Your task to perform on an android device: set the timer Image 0: 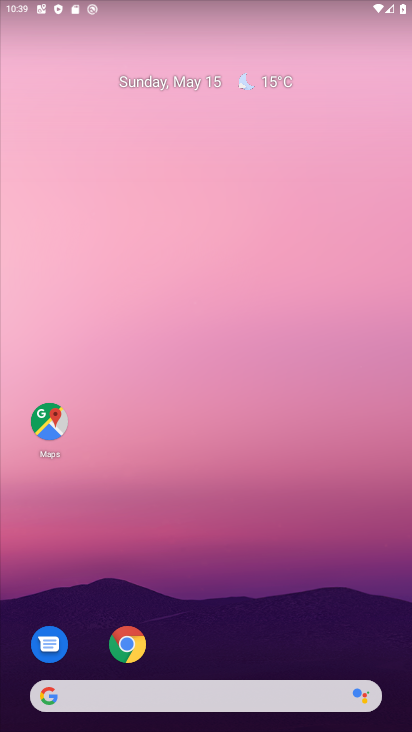
Step 0: drag from (287, 630) to (257, 155)
Your task to perform on an android device: set the timer Image 1: 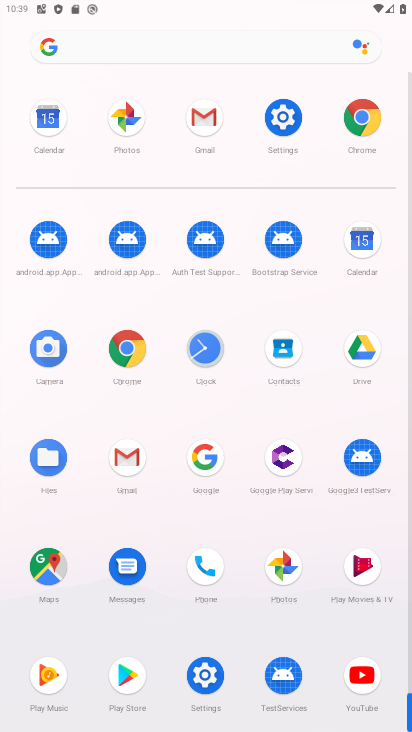
Step 1: click (210, 350)
Your task to perform on an android device: set the timer Image 2: 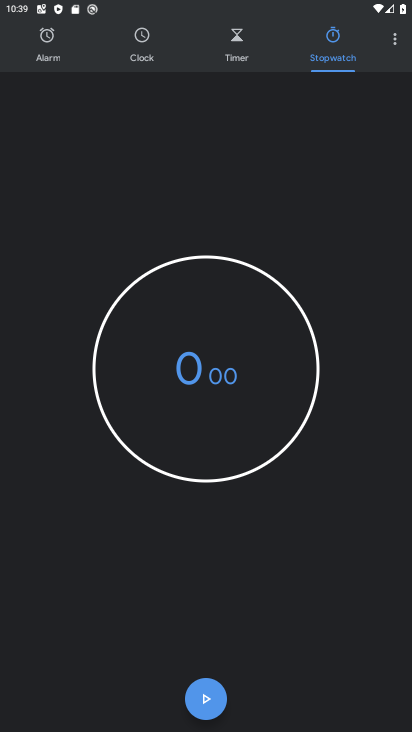
Step 2: click (227, 43)
Your task to perform on an android device: set the timer Image 3: 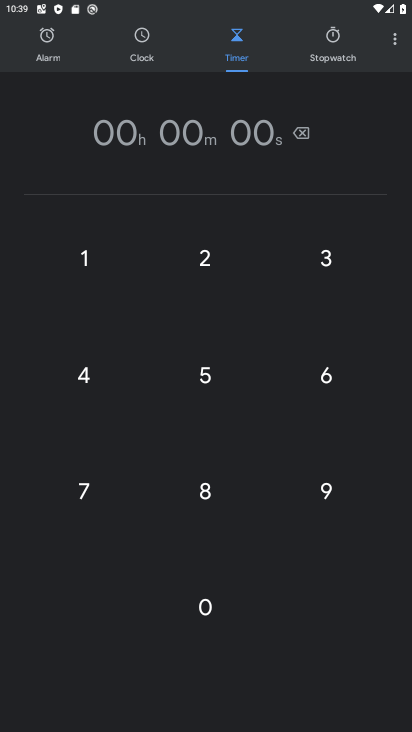
Step 3: click (88, 261)
Your task to perform on an android device: set the timer Image 4: 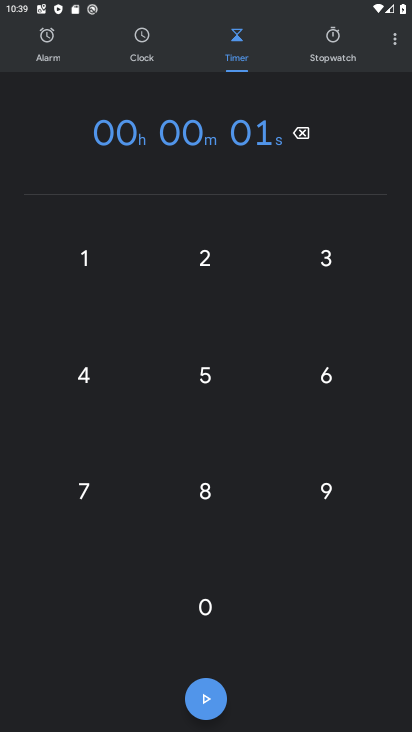
Step 4: click (220, 277)
Your task to perform on an android device: set the timer Image 5: 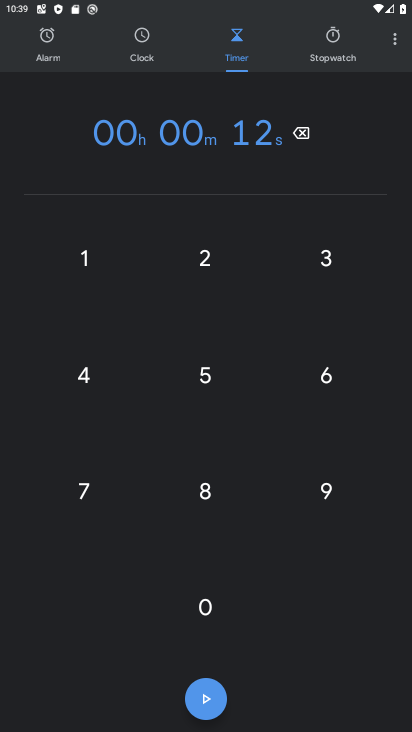
Step 5: click (306, 245)
Your task to perform on an android device: set the timer Image 6: 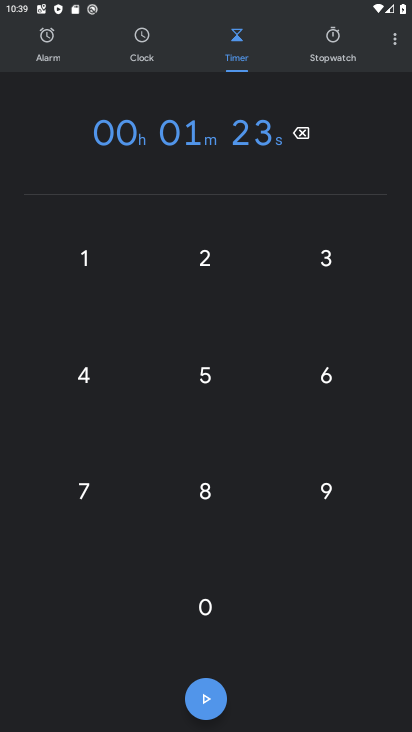
Step 6: click (87, 393)
Your task to perform on an android device: set the timer Image 7: 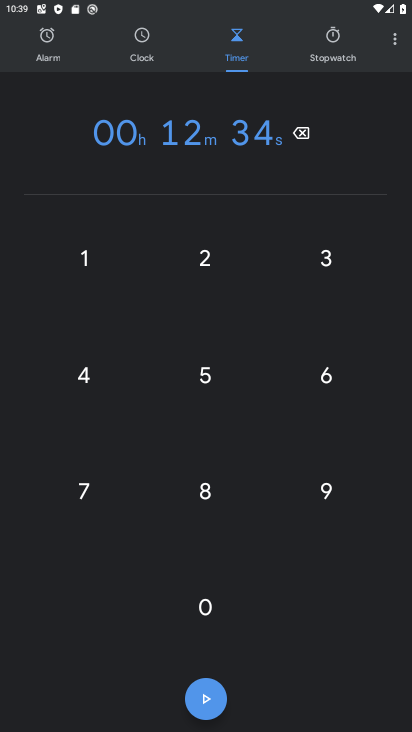
Step 7: click (236, 371)
Your task to perform on an android device: set the timer Image 8: 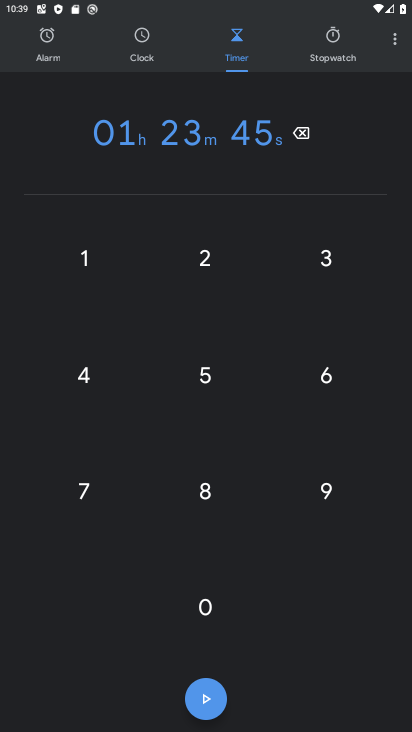
Step 8: click (331, 369)
Your task to perform on an android device: set the timer Image 9: 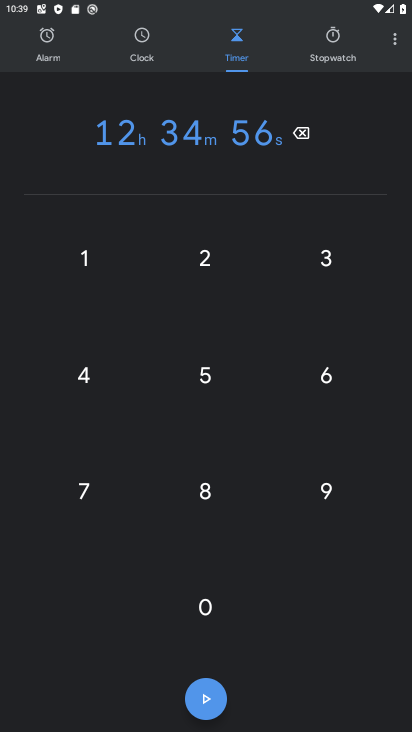
Step 9: task complete